Your task to perform on an android device: Do I have any events this weekend? Image 0: 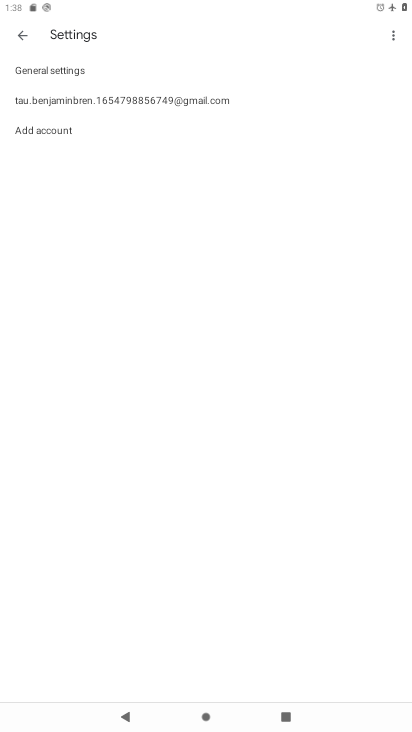
Step 0: click (258, 681)
Your task to perform on an android device: Do I have any events this weekend? Image 1: 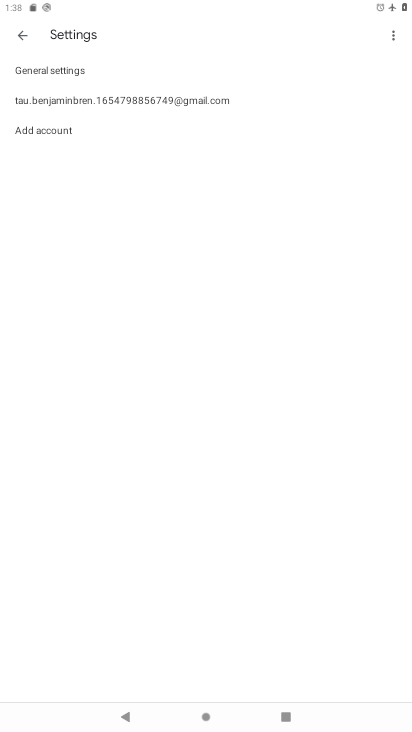
Step 1: press home button
Your task to perform on an android device: Do I have any events this weekend? Image 2: 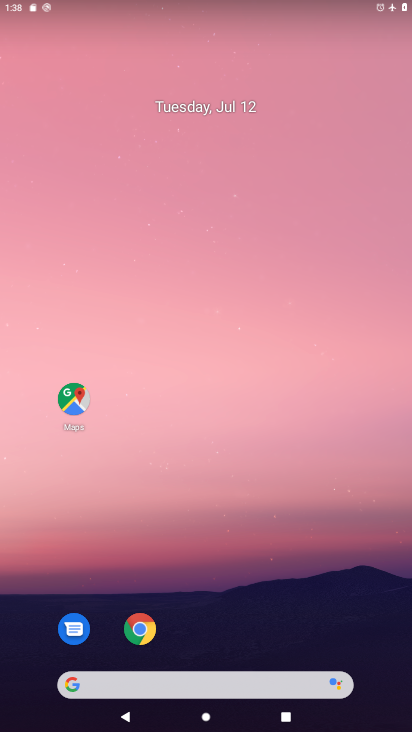
Step 2: drag from (208, 685) to (263, 122)
Your task to perform on an android device: Do I have any events this weekend? Image 3: 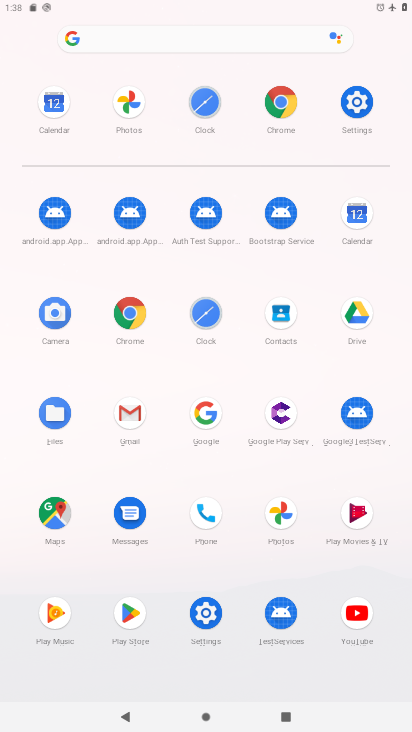
Step 3: click (350, 204)
Your task to perform on an android device: Do I have any events this weekend? Image 4: 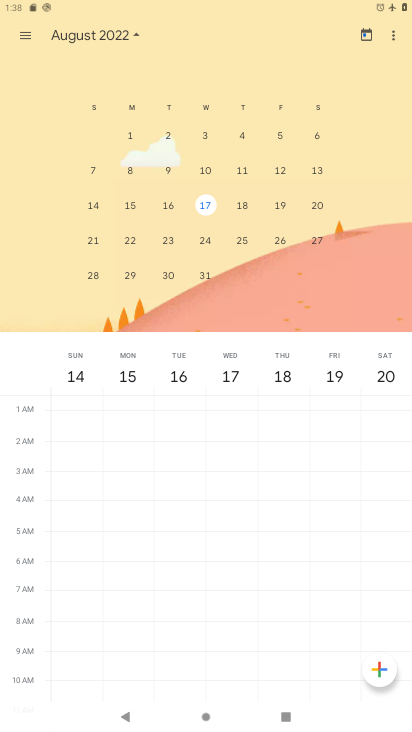
Step 4: drag from (80, 216) to (341, 239)
Your task to perform on an android device: Do I have any events this weekend? Image 5: 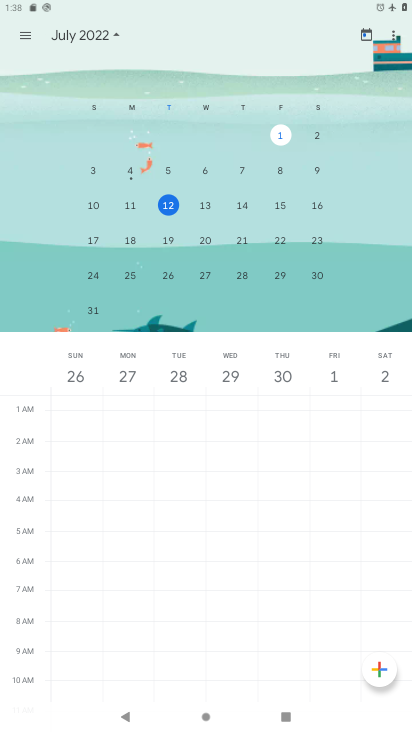
Step 5: click (323, 201)
Your task to perform on an android device: Do I have any events this weekend? Image 6: 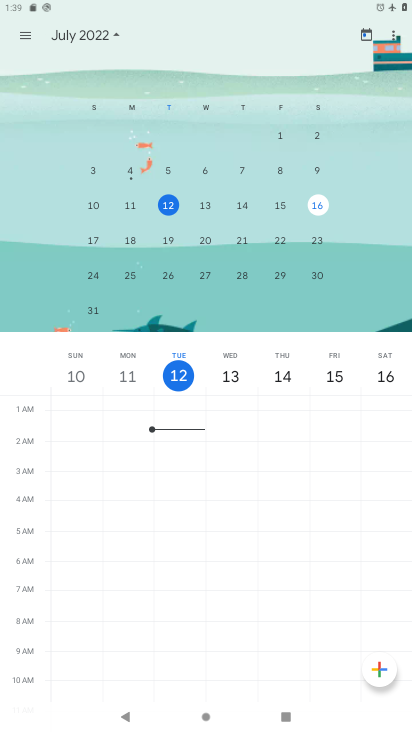
Step 6: task complete